Your task to perform on an android device: open chrome privacy settings Image 0: 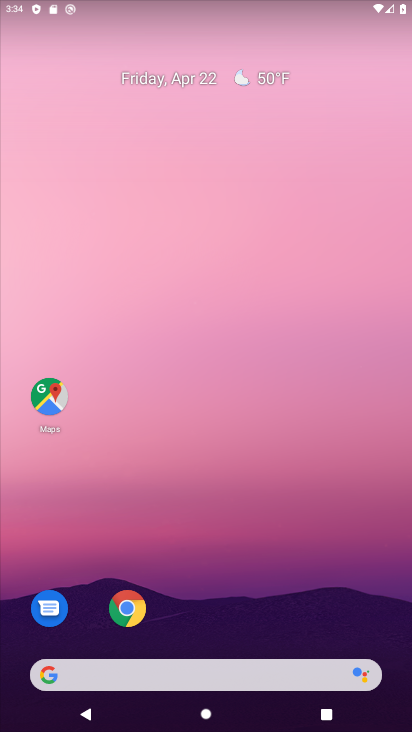
Step 0: click (129, 608)
Your task to perform on an android device: open chrome privacy settings Image 1: 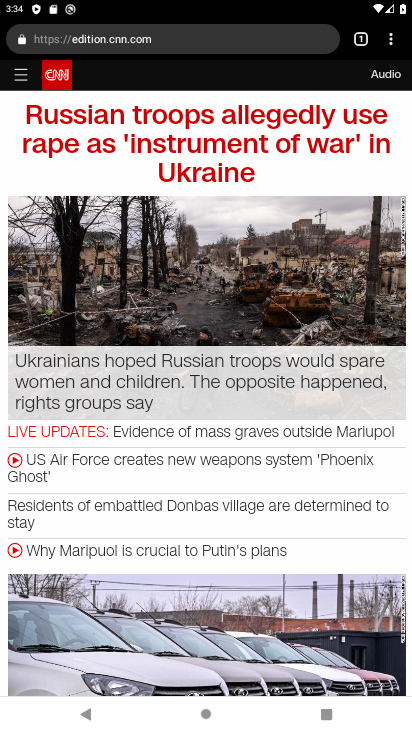
Step 1: drag from (391, 40) to (298, 432)
Your task to perform on an android device: open chrome privacy settings Image 2: 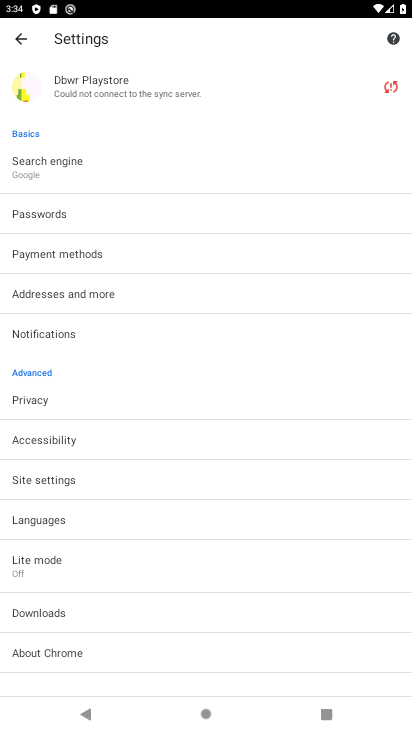
Step 2: click (34, 399)
Your task to perform on an android device: open chrome privacy settings Image 3: 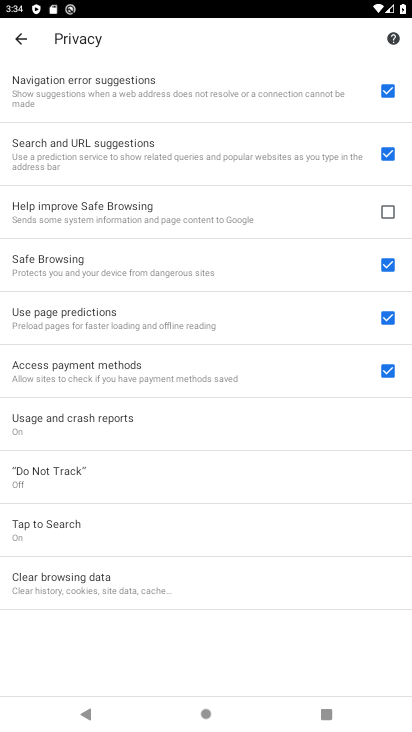
Step 3: task complete